Your task to perform on an android device: stop showing notifications on the lock screen Image 0: 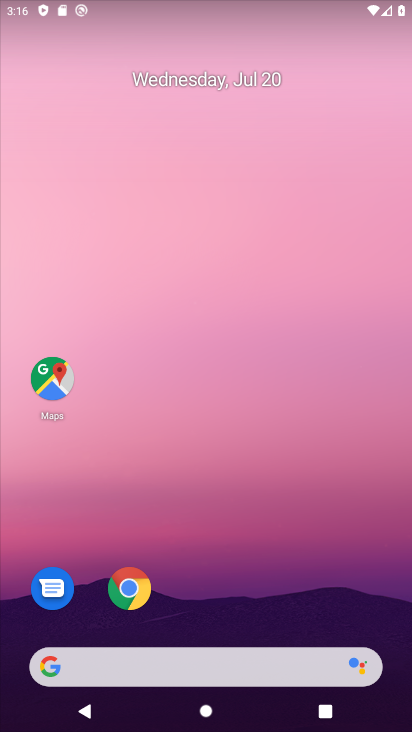
Step 0: drag from (321, 580) to (250, 0)
Your task to perform on an android device: stop showing notifications on the lock screen Image 1: 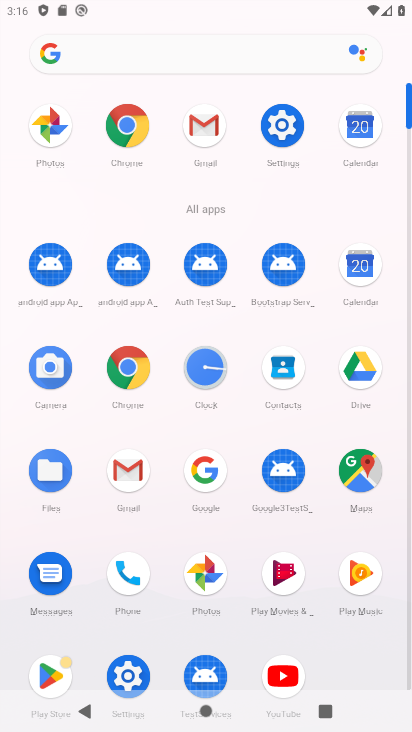
Step 1: click (287, 120)
Your task to perform on an android device: stop showing notifications on the lock screen Image 2: 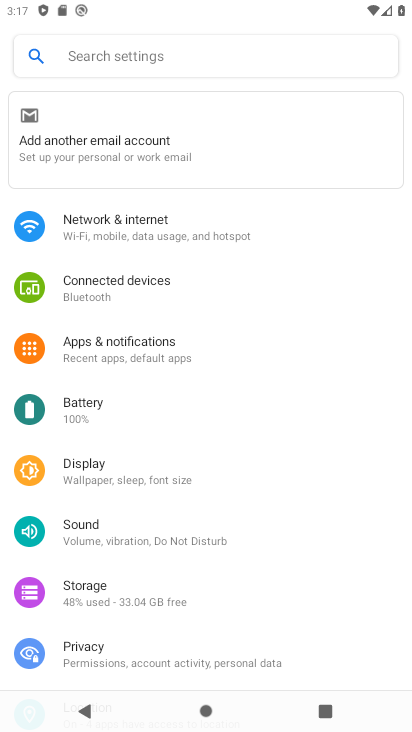
Step 2: drag from (218, 555) to (276, 225)
Your task to perform on an android device: stop showing notifications on the lock screen Image 3: 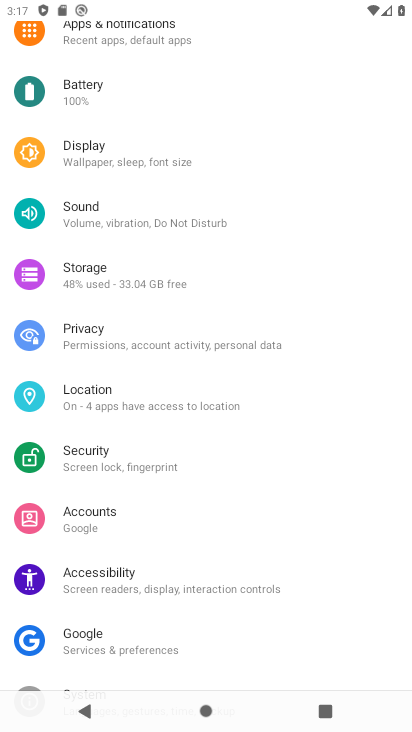
Step 3: click (148, 41)
Your task to perform on an android device: stop showing notifications on the lock screen Image 4: 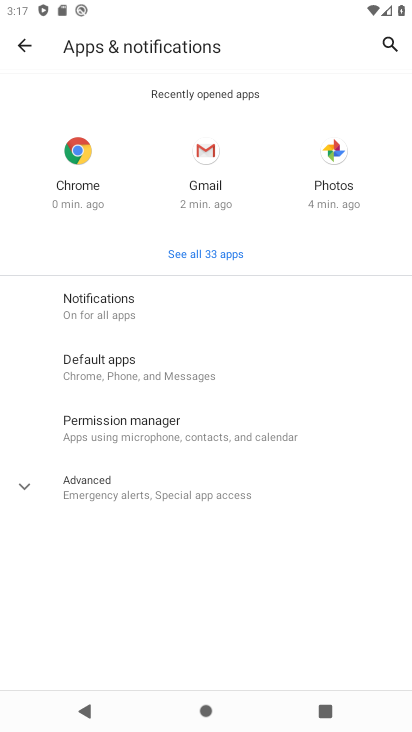
Step 4: click (124, 321)
Your task to perform on an android device: stop showing notifications on the lock screen Image 5: 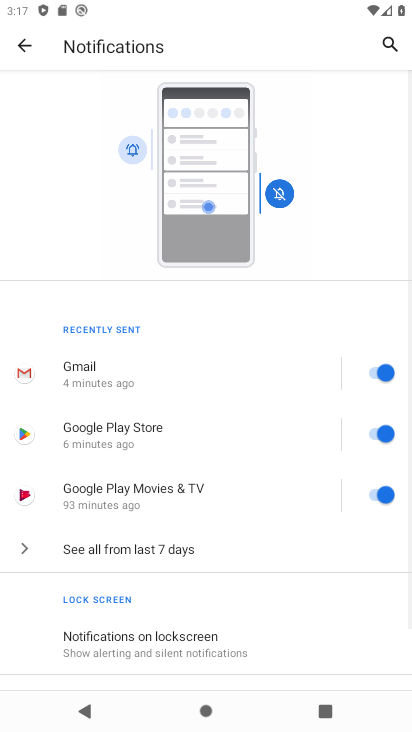
Step 5: drag from (196, 613) to (256, 138)
Your task to perform on an android device: stop showing notifications on the lock screen Image 6: 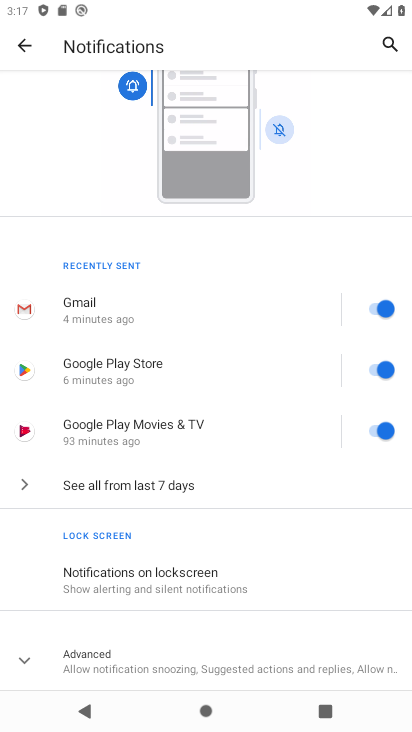
Step 6: click (200, 573)
Your task to perform on an android device: stop showing notifications on the lock screen Image 7: 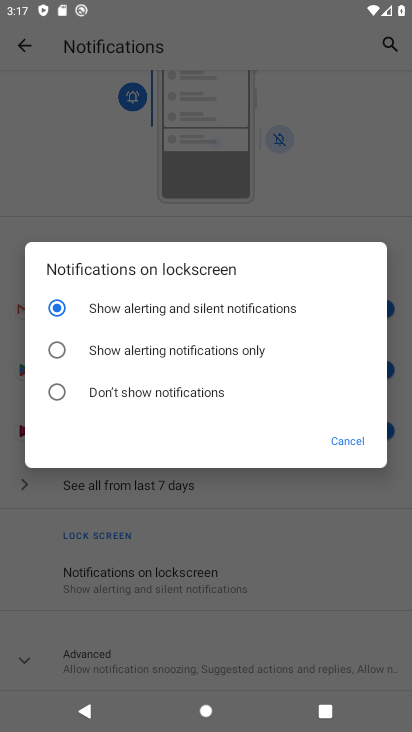
Step 7: click (180, 395)
Your task to perform on an android device: stop showing notifications on the lock screen Image 8: 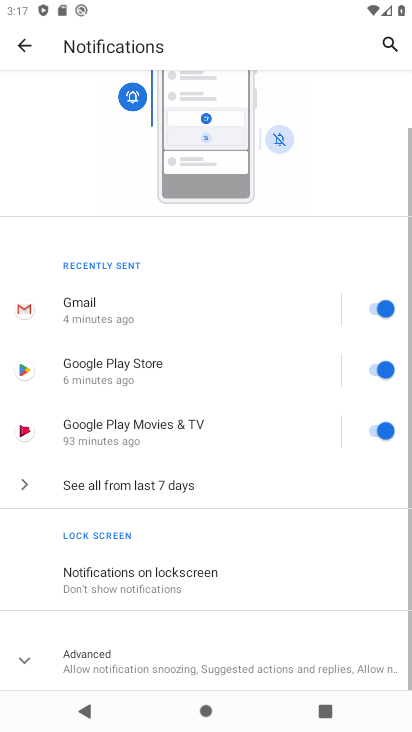
Step 8: task complete